Your task to perform on an android device: Open settings on Google Maps Image 0: 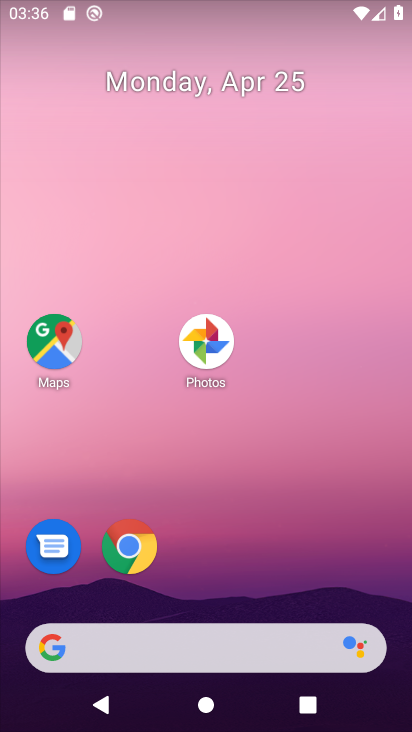
Step 0: drag from (278, 553) to (264, 254)
Your task to perform on an android device: Open settings on Google Maps Image 1: 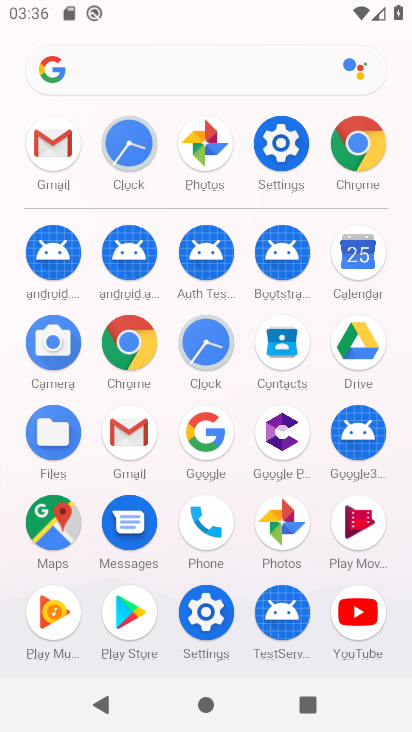
Step 1: click (50, 499)
Your task to perform on an android device: Open settings on Google Maps Image 2: 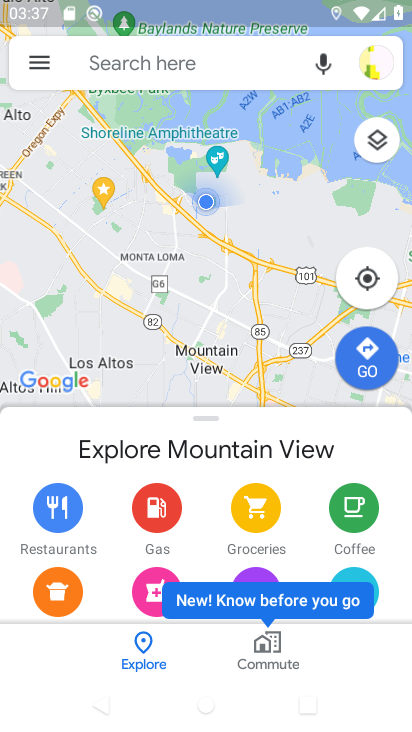
Step 2: task complete